Your task to perform on an android device: turn notification dots off Image 0: 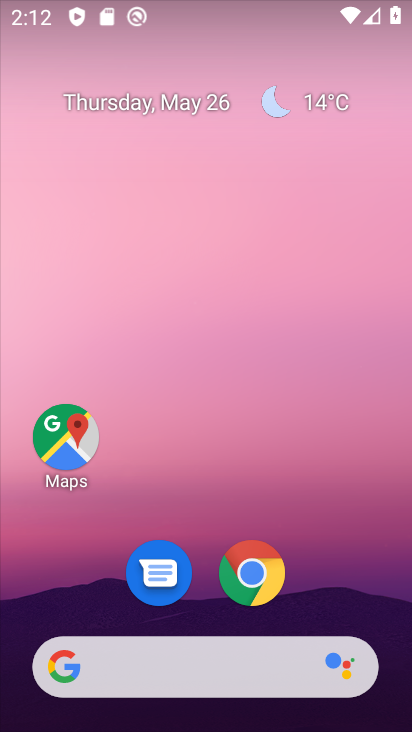
Step 0: drag from (321, 524) to (221, 15)
Your task to perform on an android device: turn notification dots off Image 1: 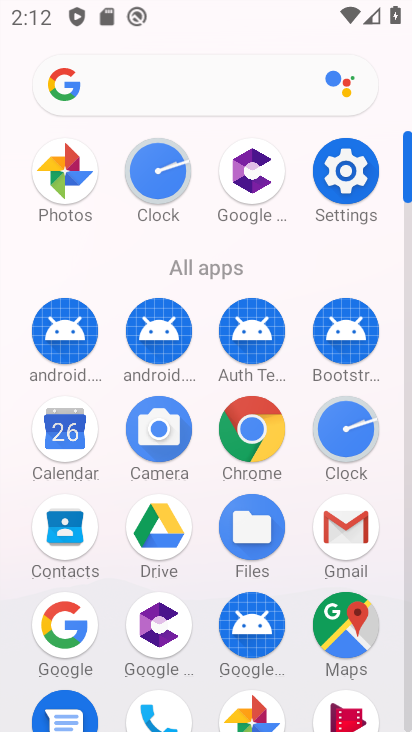
Step 1: drag from (19, 476) to (19, 165)
Your task to perform on an android device: turn notification dots off Image 2: 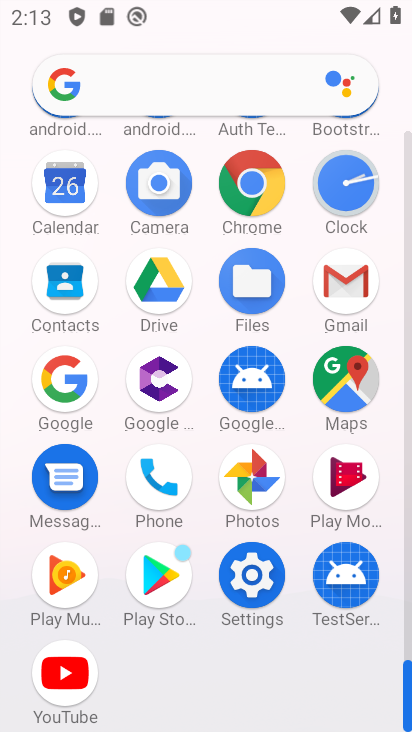
Step 2: click (255, 577)
Your task to perform on an android device: turn notification dots off Image 3: 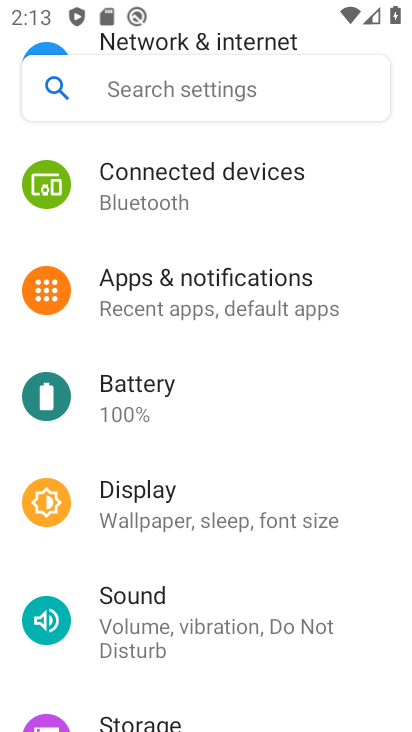
Step 3: click (219, 297)
Your task to perform on an android device: turn notification dots off Image 4: 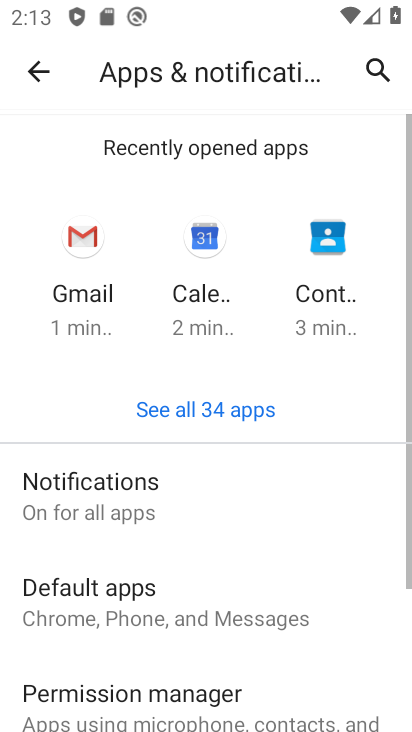
Step 4: click (172, 502)
Your task to perform on an android device: turn notification dots off Image 5: 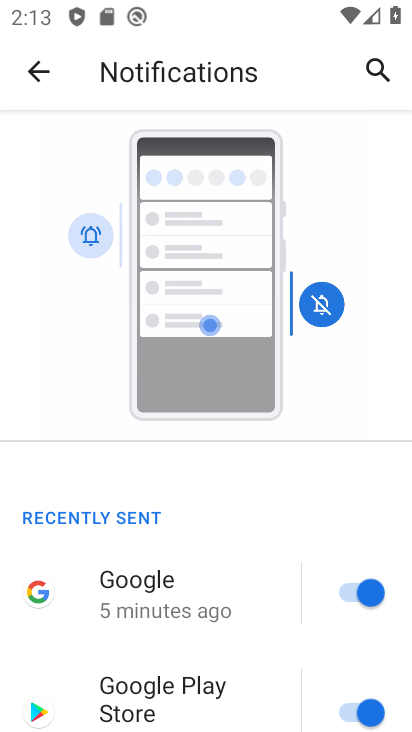
Step 5: drag from (206, 541) to (236, 148)
Your task to perform on an android device: turn notification dots off Image 6: 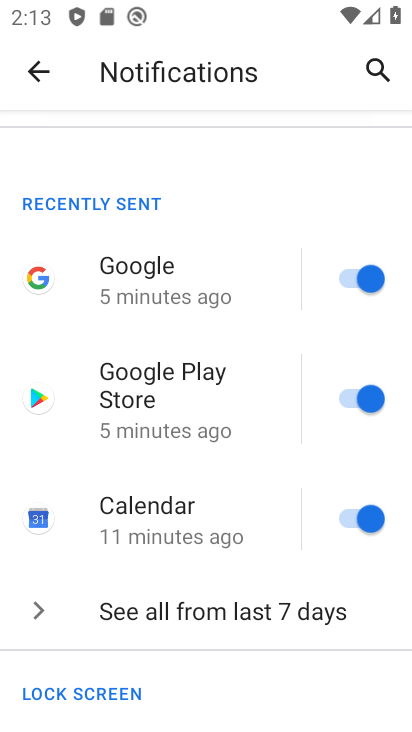
Step 6: drag from (194, 663) to (226, 241)
Your task to perform on an android device: turn notification dots off Image 7: 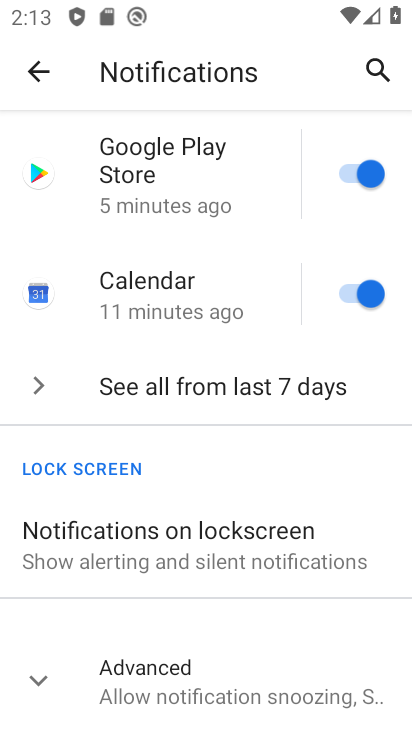
Step 7: click (168, 671)
Your task to perform on an android device: turn notification dots off Image 8: 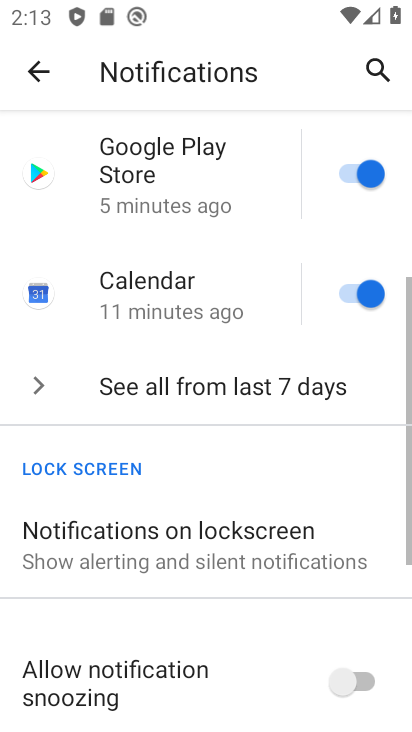
Step 8: drag from (232, 660) to (269, 162)
Your task to perform on an android device: turn notification dots off Image 9: 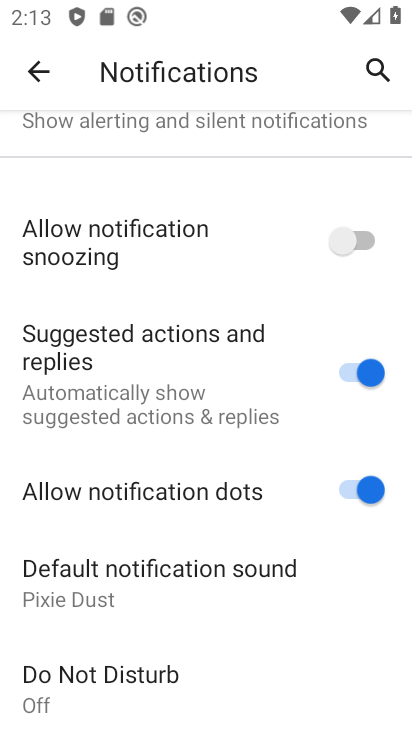
Step 9: click (363, 484)
Your task to perform on an android device: turn notification dots off Image 10: 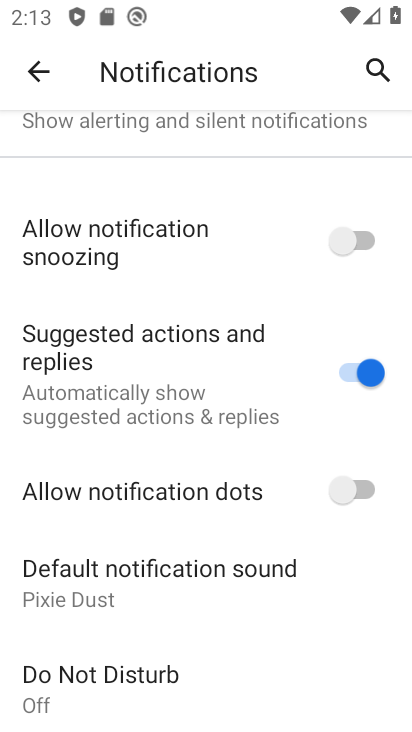
Step 10: task complete